Your task to perform on an android device: toggle data saver in the chrome app Image 0: 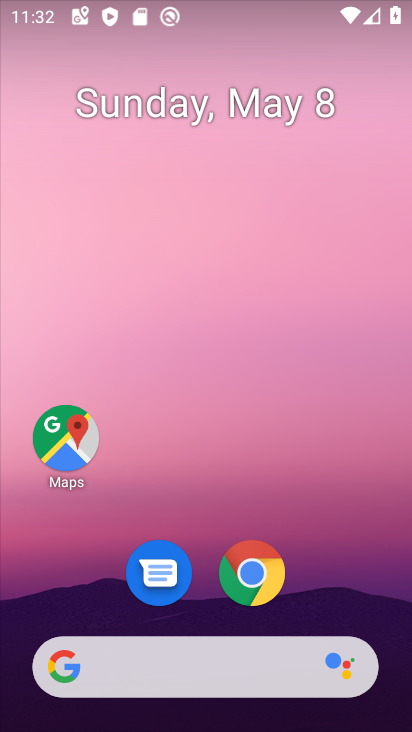
Step 0: drag from (335, 513) to (266, 6)
Your task to perform on an android device: toggle data saver in the chrome app Image 1: 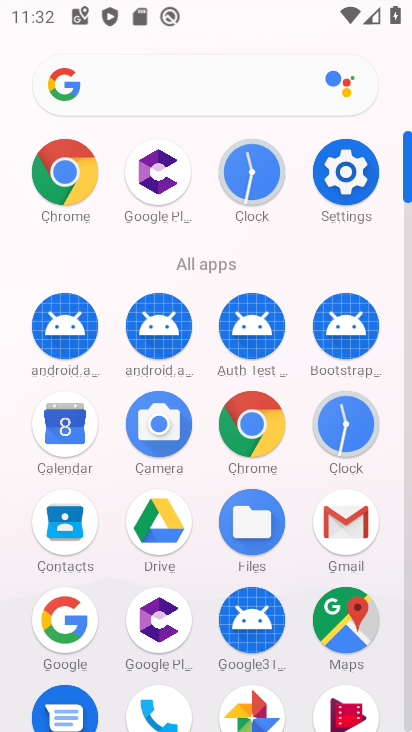
Step 1: click (59, 166)
Your task to perform on an android device: toggle data saver in the chrome app Image 2: 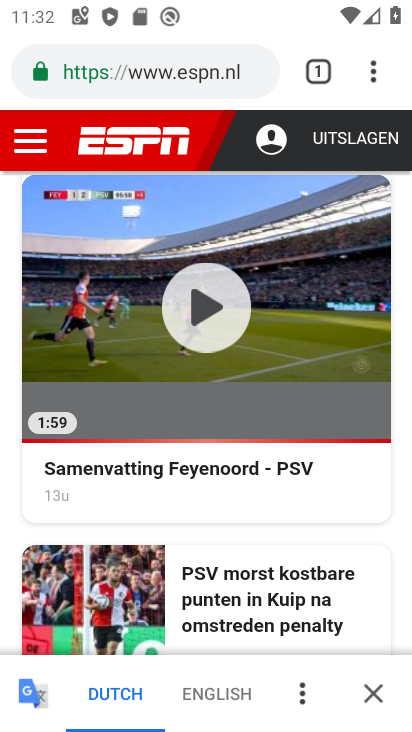
Step 2: drag from (373, 58) to (122, 577)
Your task to perform on an android device: toggle data saver in the chrome app Image 3: 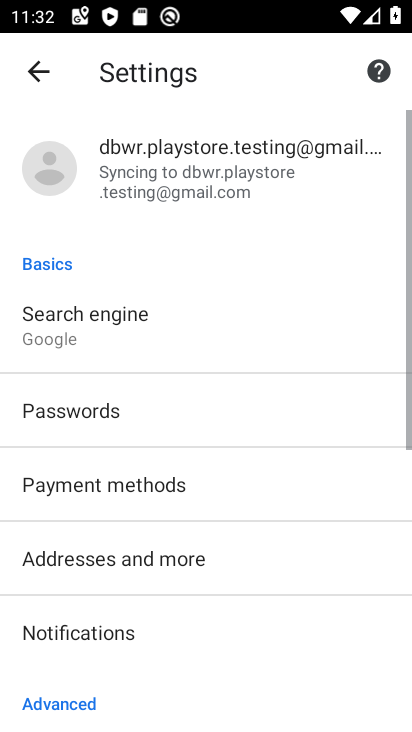
Step 3: drag from (242, 535) to (245, 122)
Your task to perform on an android device: toggle data saver in the chrome app Image 4: 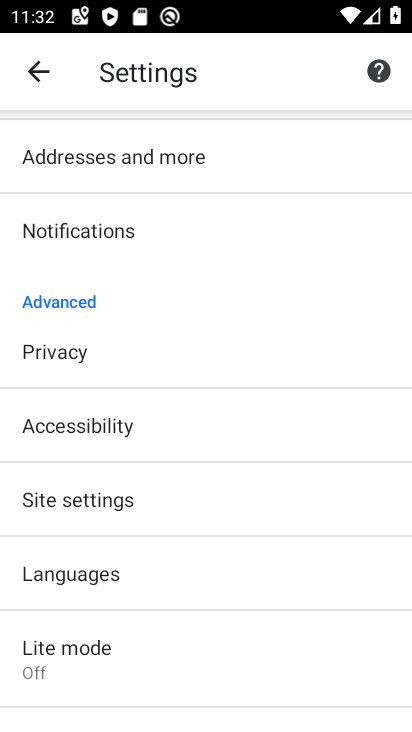
Step 4: drag from (216, 525) to (259, 128)
Your task to perform on an android device: toggle data saver in the chrome app Image 5: 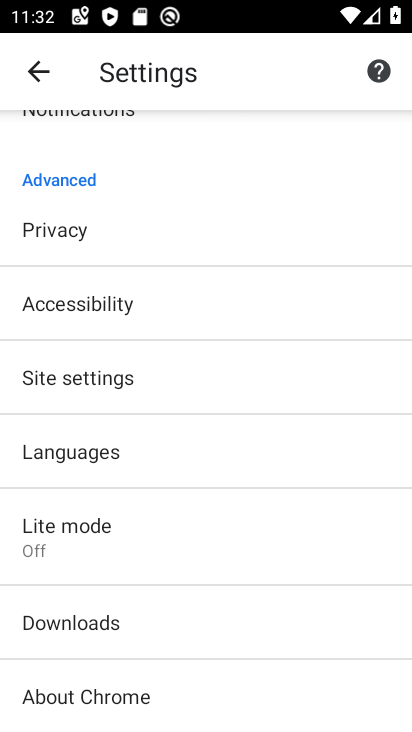
Step 5: click (167, 547)
Your task to perform on an android device: toggle data saver in the chrome app Image 6: 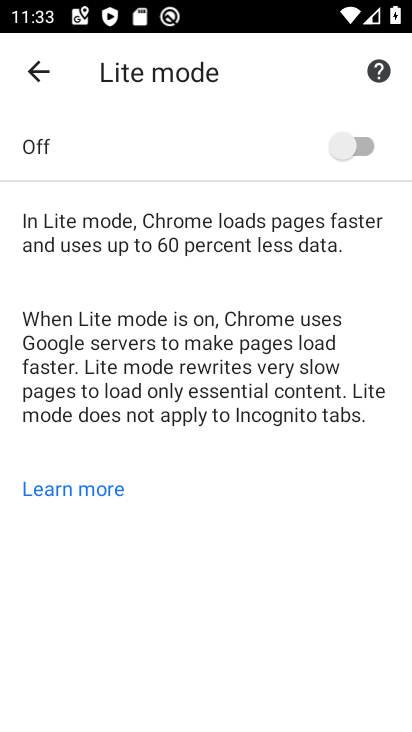
Step 6: click (367, 145)
Your task to perform on an android device: toggle data saver in the chrome app Image 7: 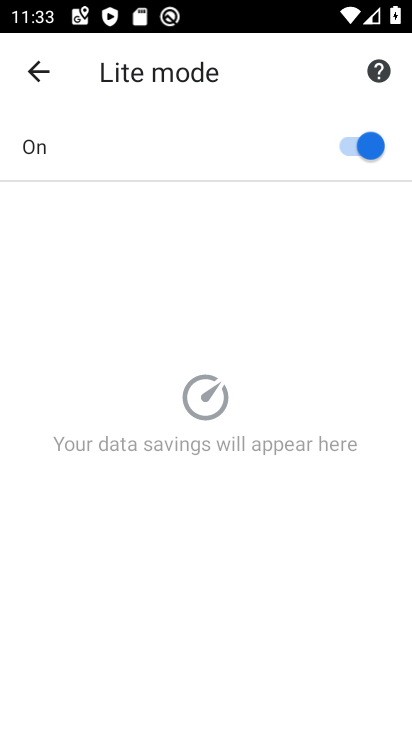
Step 7: task complete